Your task to perform on an android device: What's on my calendar today? Image 0: 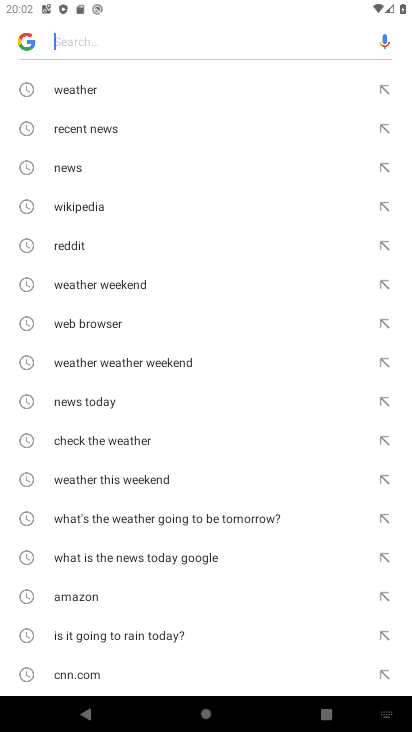
Step 0: press home button
Your task to perform on an android device: What's on my calendar today? Image 1: 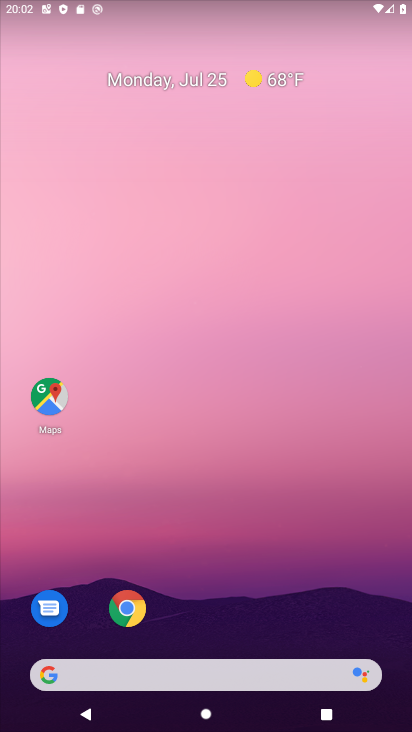
Step 1: drag from (247, 633) to (256, 0)
Your task to perform on an android device: What's on my calendar today? Image 2: 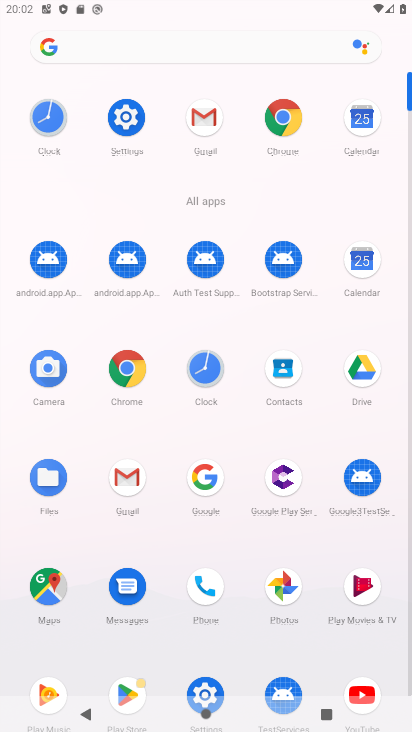
Step 2: click (360, 124)
Your task to perform on an android device: What's on my calendar today? Image 3: 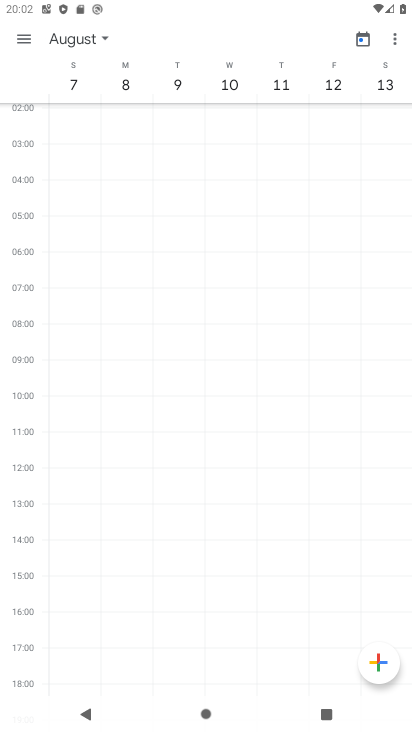
Step 3: click (23, 39)
Your task to perform on an android device: What's on my calendar today? Image 4: 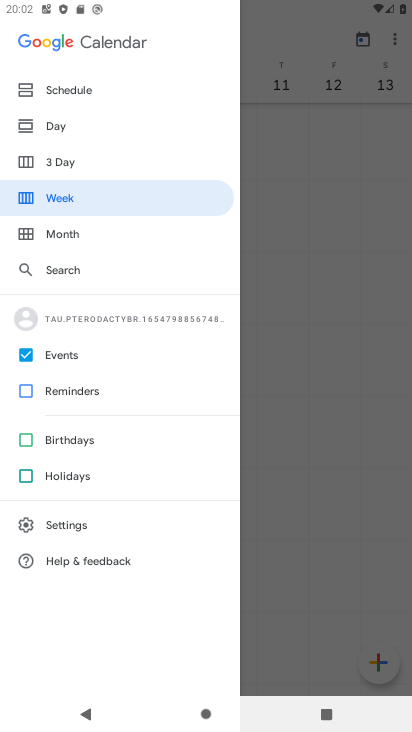
Step 4: click (47, 120)
Your task to perform on an android device: What's on my calendar today? Image 5: 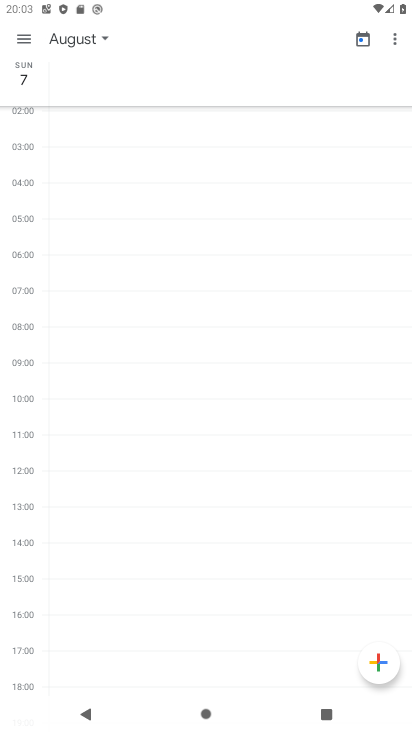
Step 5: click (361, 39)
Your task to perform on an android device: What's on my calendar today? Image 6: 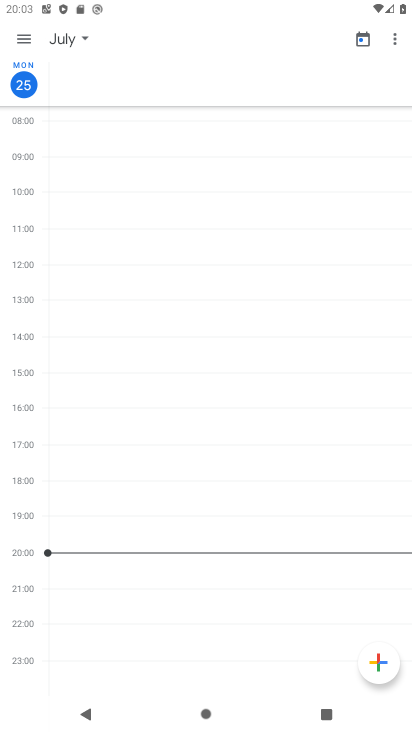
Step 6: click (30, 37)
Your task to perform on an android device: What's on my calendar today? Image 7: 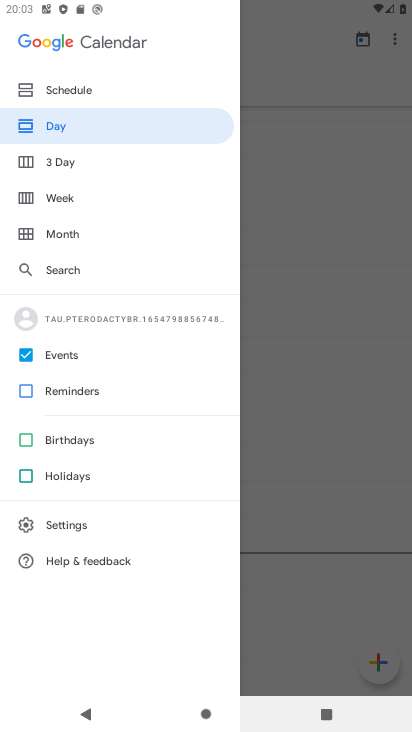
Step 7: click (25, 390)
Your task to perform on an android device: What's on my calendar today? Image 8: 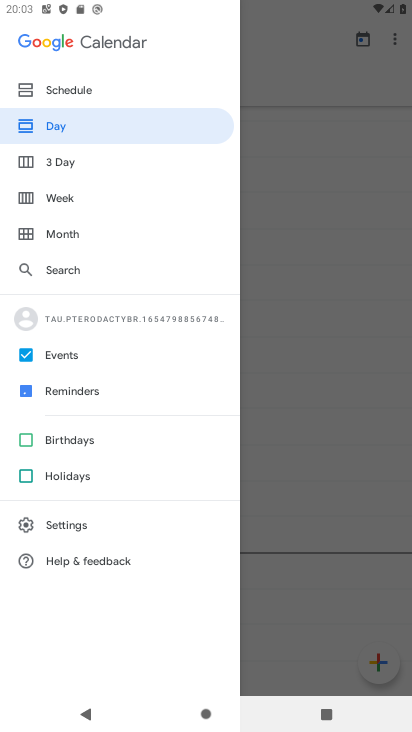
Step 8: click (28, 445)
Your task to perform on an android device: What's on my calendar today? Image 9: 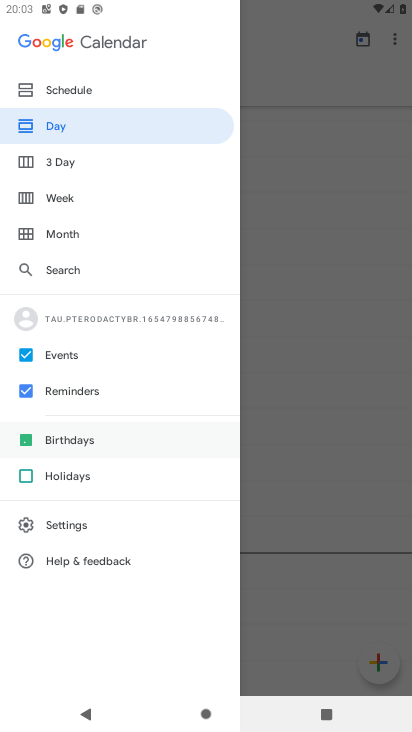
Step 9: click (25, 477)
Your task to perform on an android device: What's on my calendar today? Image 10: 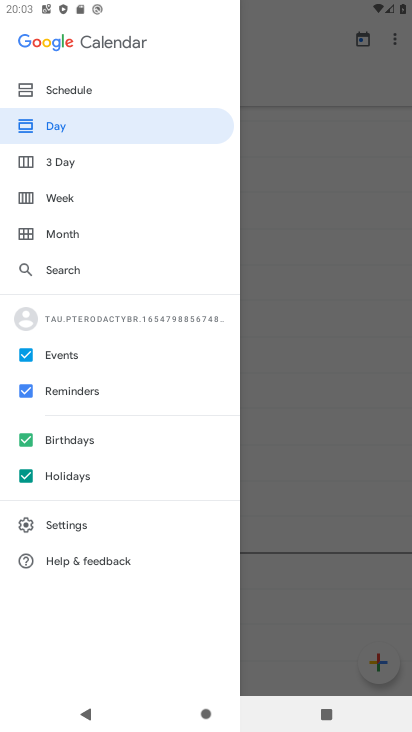
Step 10: click (30, 128)
Your task to perform on an android device: What's on my calendar today? Image 11: 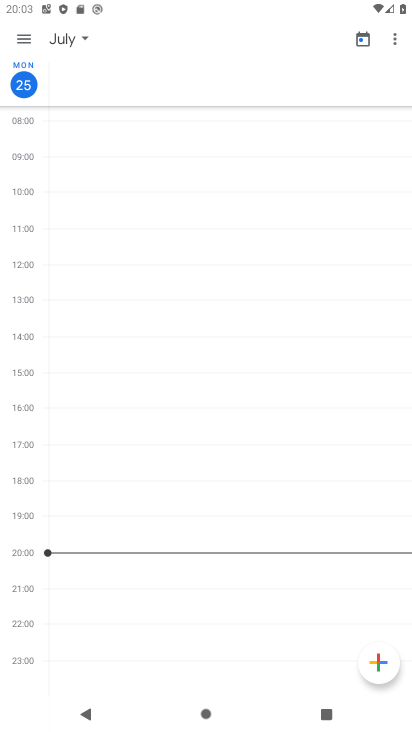
Step 11: drag from (236, 472) to (217, 276)
Your task to perform on an android device: What's on my calendar today? Image 12: 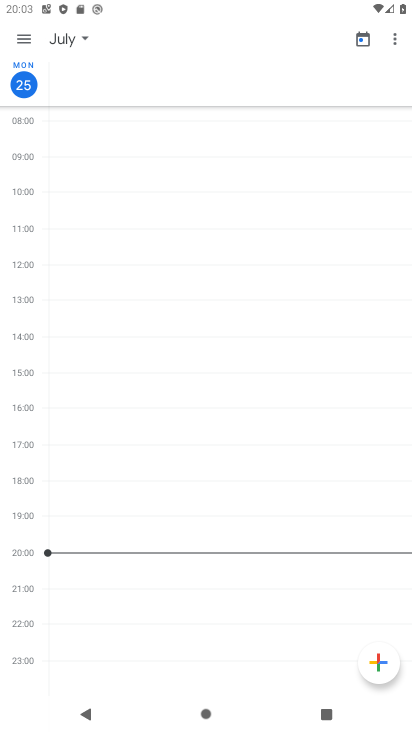
Step 12: drag from (217, 276) to (236, 531)
Your task to perform on an android device: What's on my calendar today? Image 13: 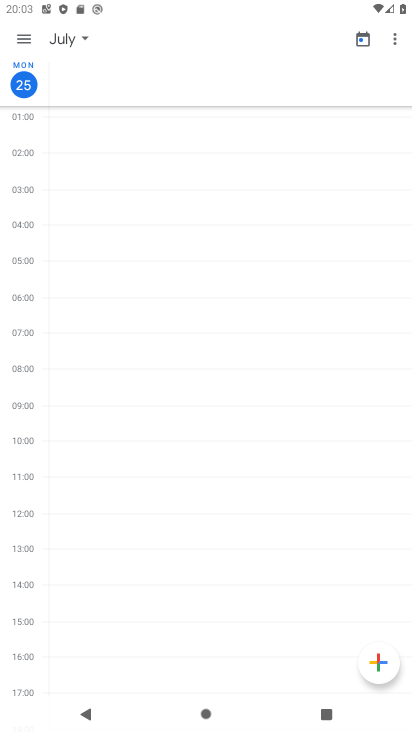
Step 13: drag from (199, 253) to (208, 537)
Your task to perform on an android device: What's on my calendar today? Image 14: 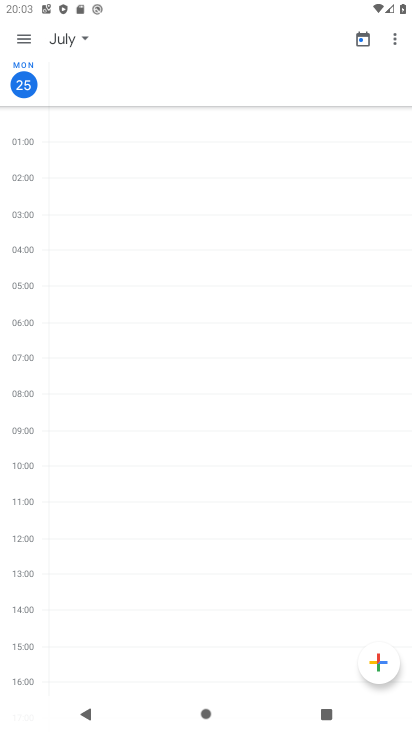
Step 14: drag from (186, 349) to (185, 548)
Your task to perform on an android device: What's on my calendar today? Image 15: 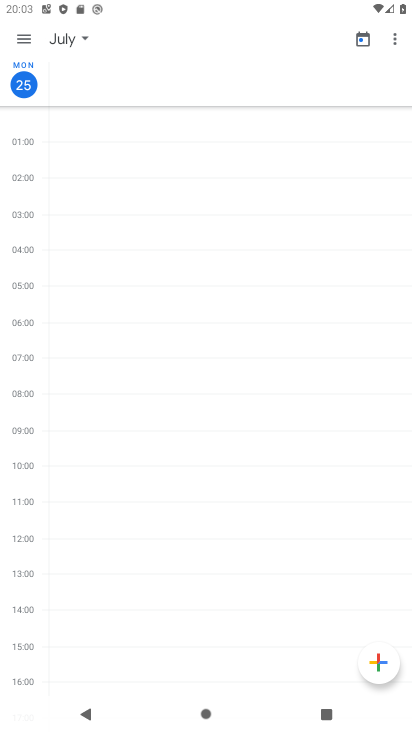
Step 15: drag from (185, 548) to (197, 147)
Your task to perform on an android device: What's on my calendar today? Image 16: 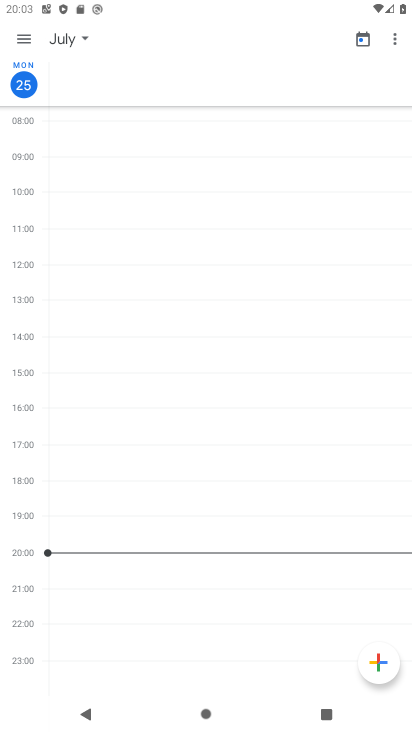
Step 16: click (96, 555)
Your task to perform on an android device: What's on my calendar today? Image 17: 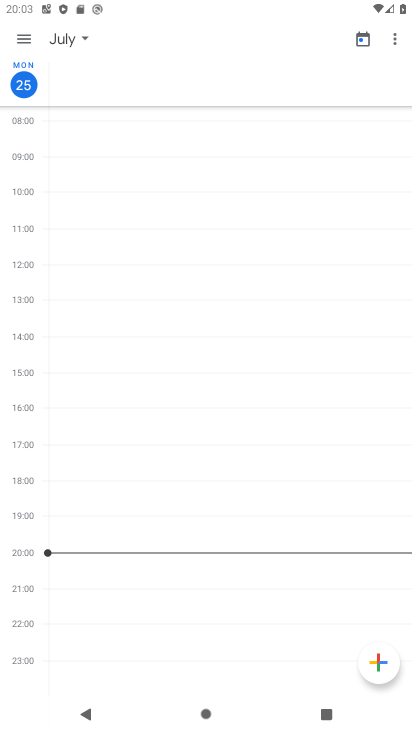
Step 17: click (44, 553)
Your task to perform on an android device: What's on my calendar today? Image 18: 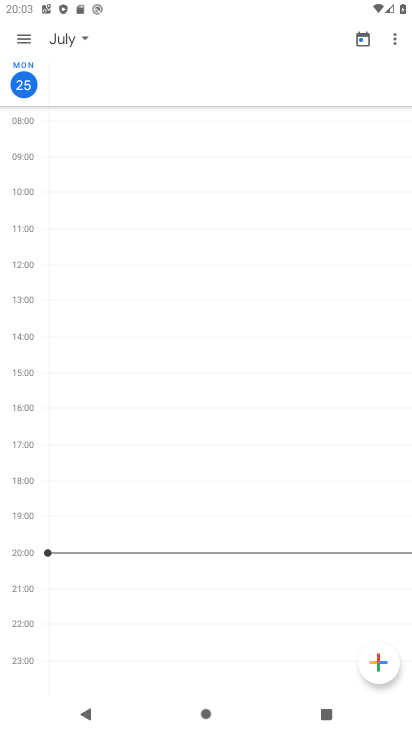
Step 18: task complete